Your task to perform on an android device: check android version Image 0: 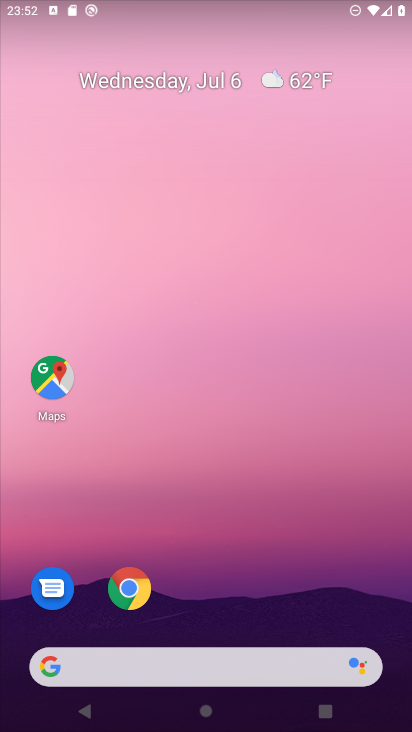
Step 0: drag from (351, 601) to (304, 117)
Your task to perform on an android device: check android version Image 1: 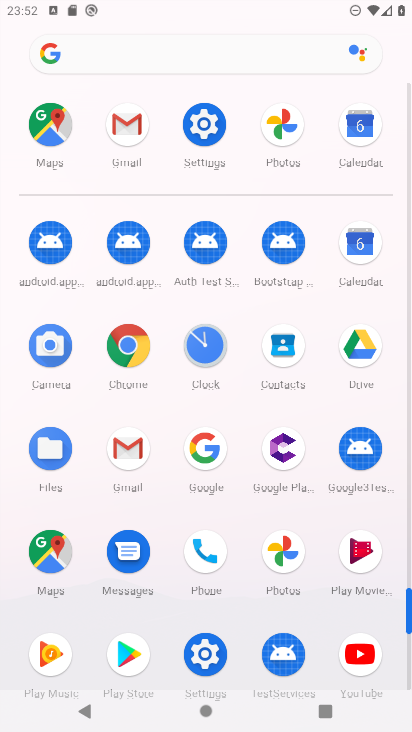
Step 1: click (205, 654)
Your task to perform on an android device: check android version Image 2: 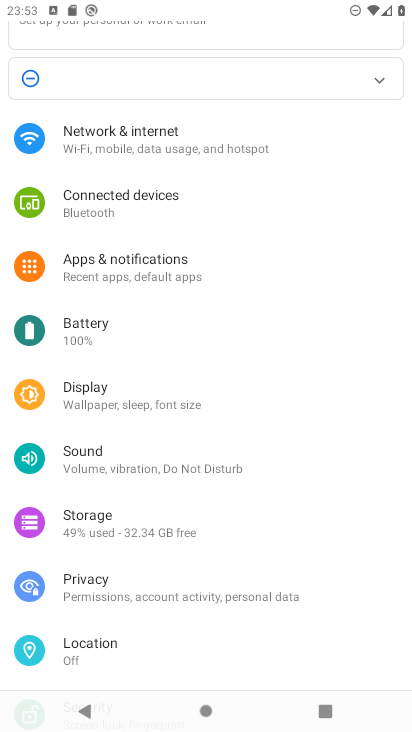
Step 2: drag from (317, 608) to (309, 206)
Your task to perform on an android device: check android version Image 3: 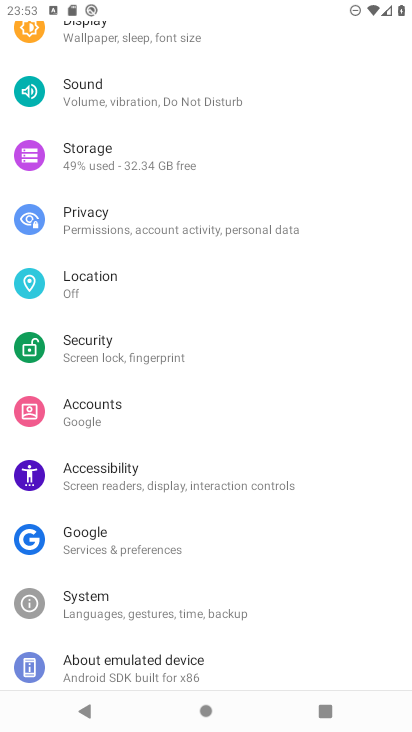
Step 3: drag from (275, 563) to (279, 193)
Your task to perform on an android device: check android version Image 4: 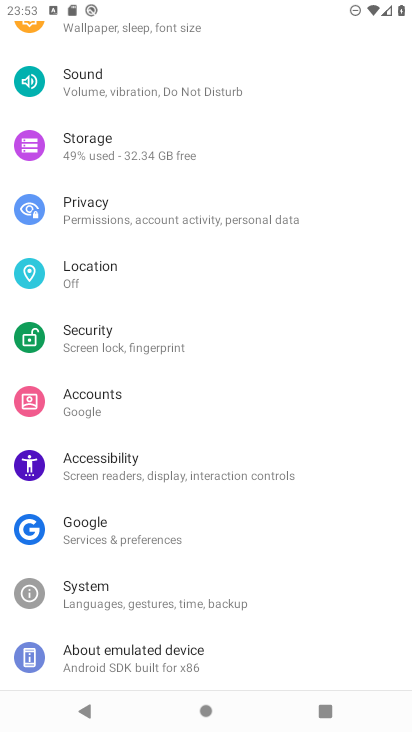
Step 4: drag from (291, 626) to (305, 274)
Your task to perform on an android device: check android version Image 5: 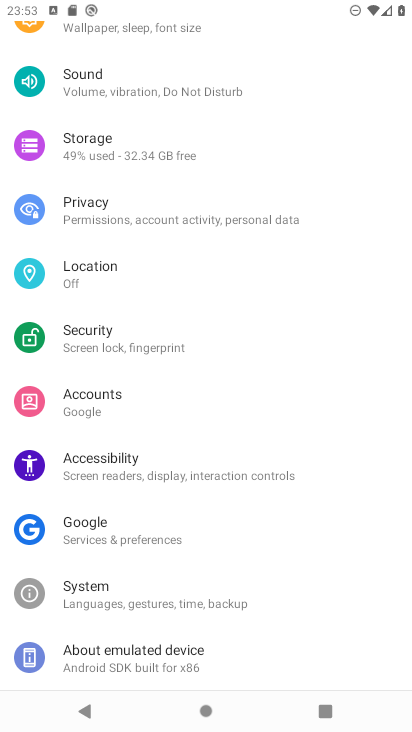
Step 5: click (119, 657)
Your task to perform on an android device: check android version Image 6: 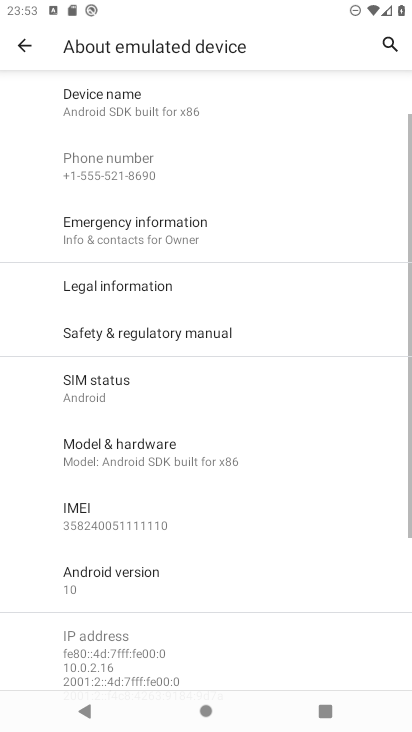
Step 6: click (72, 589)
Your task to perform on an android device: check android version Image 7: 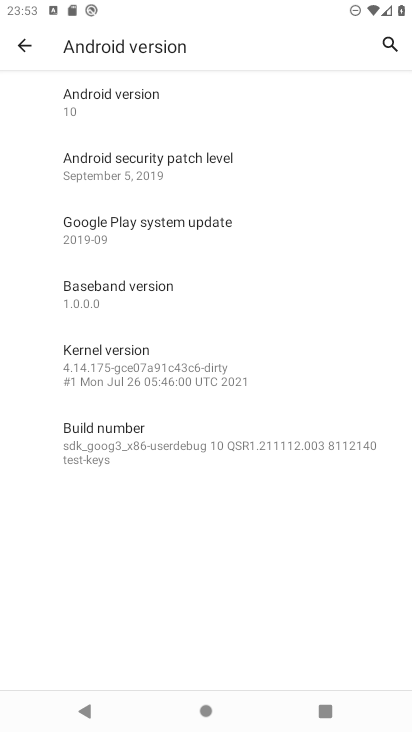
Step 7: drag from (311, 123) to (306, 361)
Your task to perform on an android device: check android version Image 8: 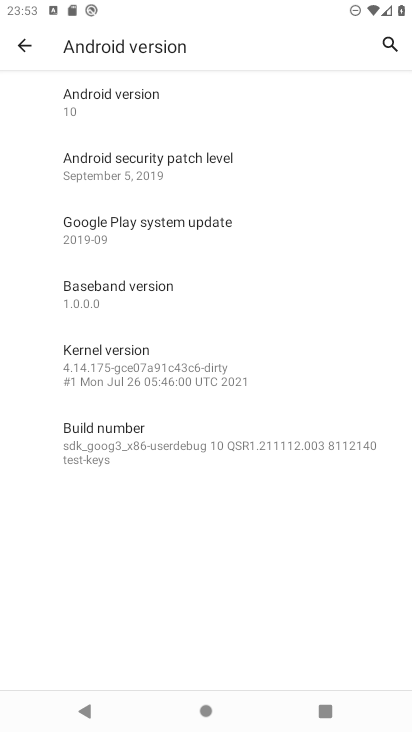
Step 8: click (114, 98)
Your task to perform on an android device: check android version Image 9: 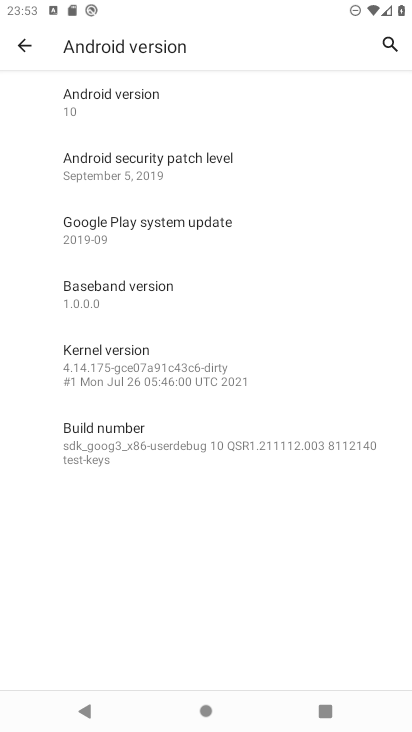
Step 9: task complete